Your task to perform on an android device: open app "Gmail" (install if not already installed) and go to login screen Image 0: 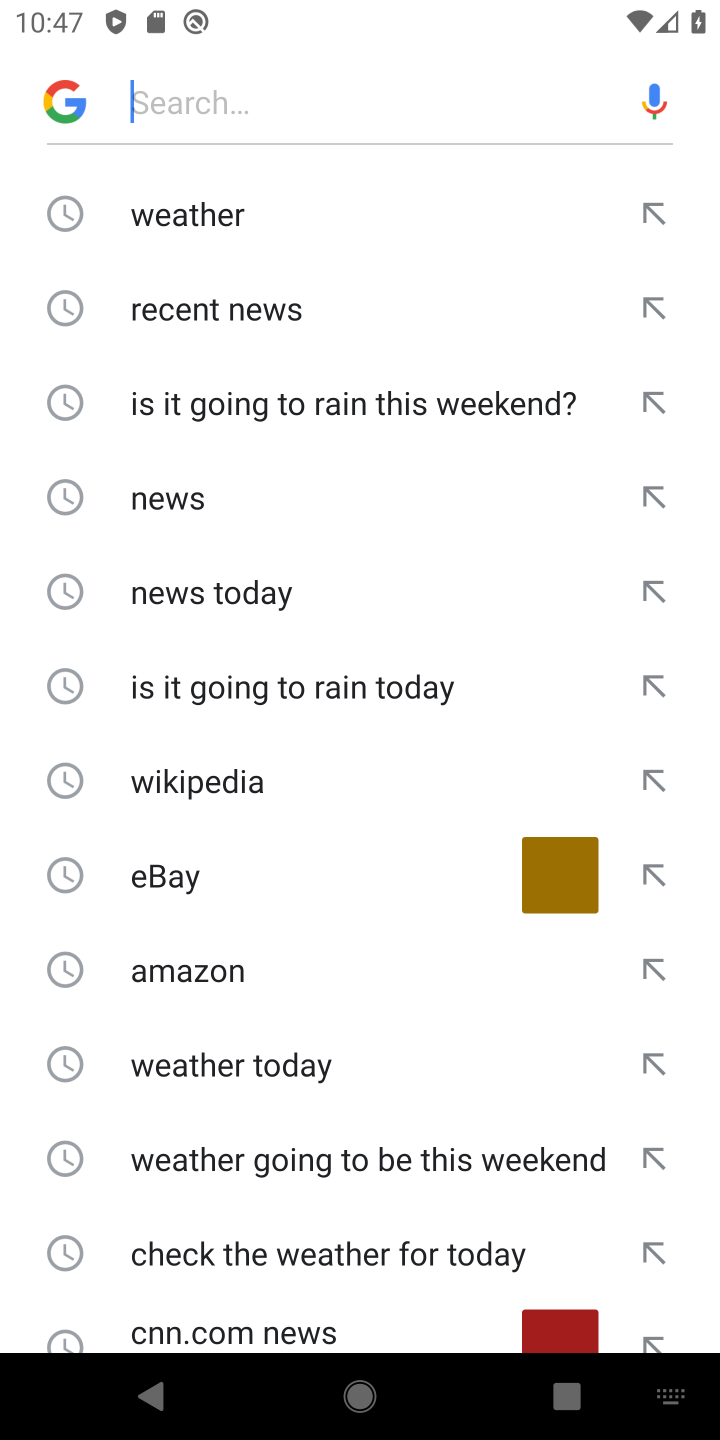
Step 0: press home button
Your task to perform on an android device: open app "Gmail" (install if not already installed) and go to login screen Image 1: 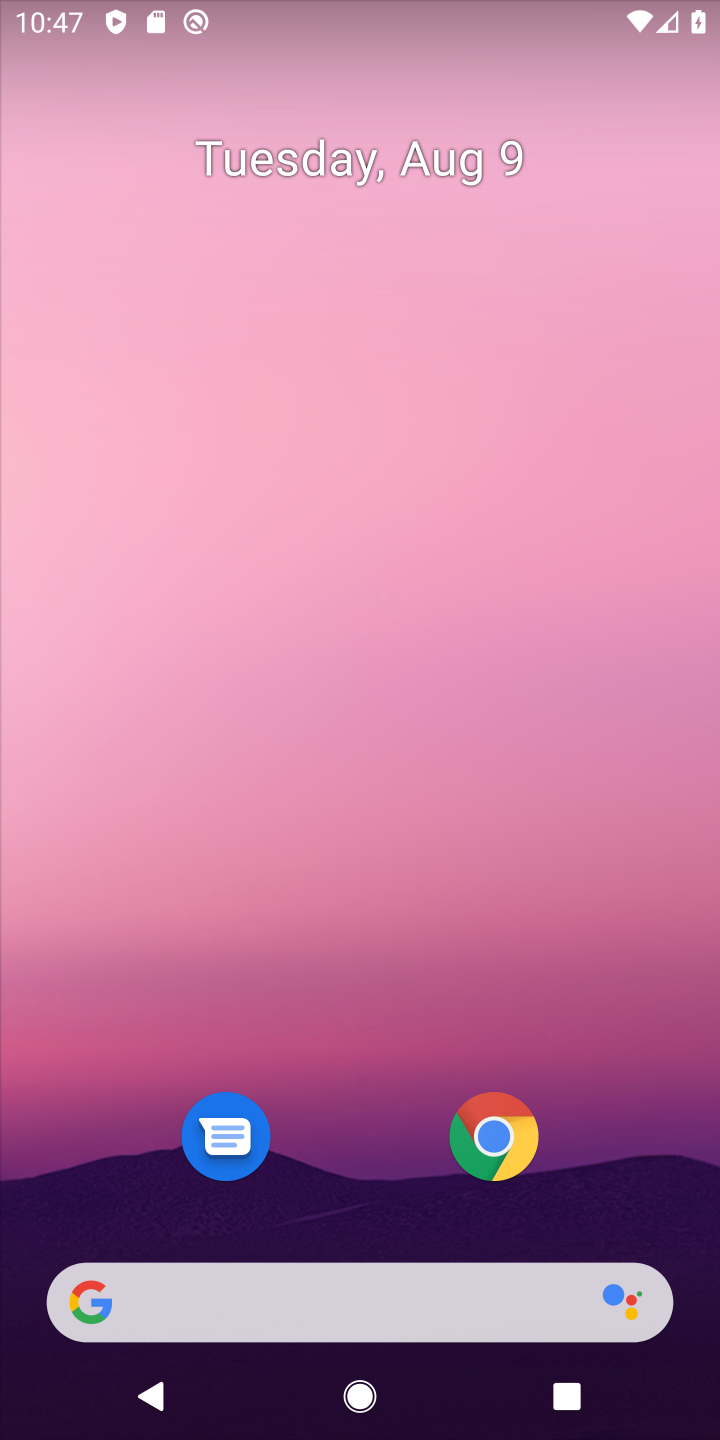
Step 1: drag from (323, 1009) to (401, 10)
Your task to perform on an android device: open app "Gmail" (install if not already installed) and go to login screen Image 2: 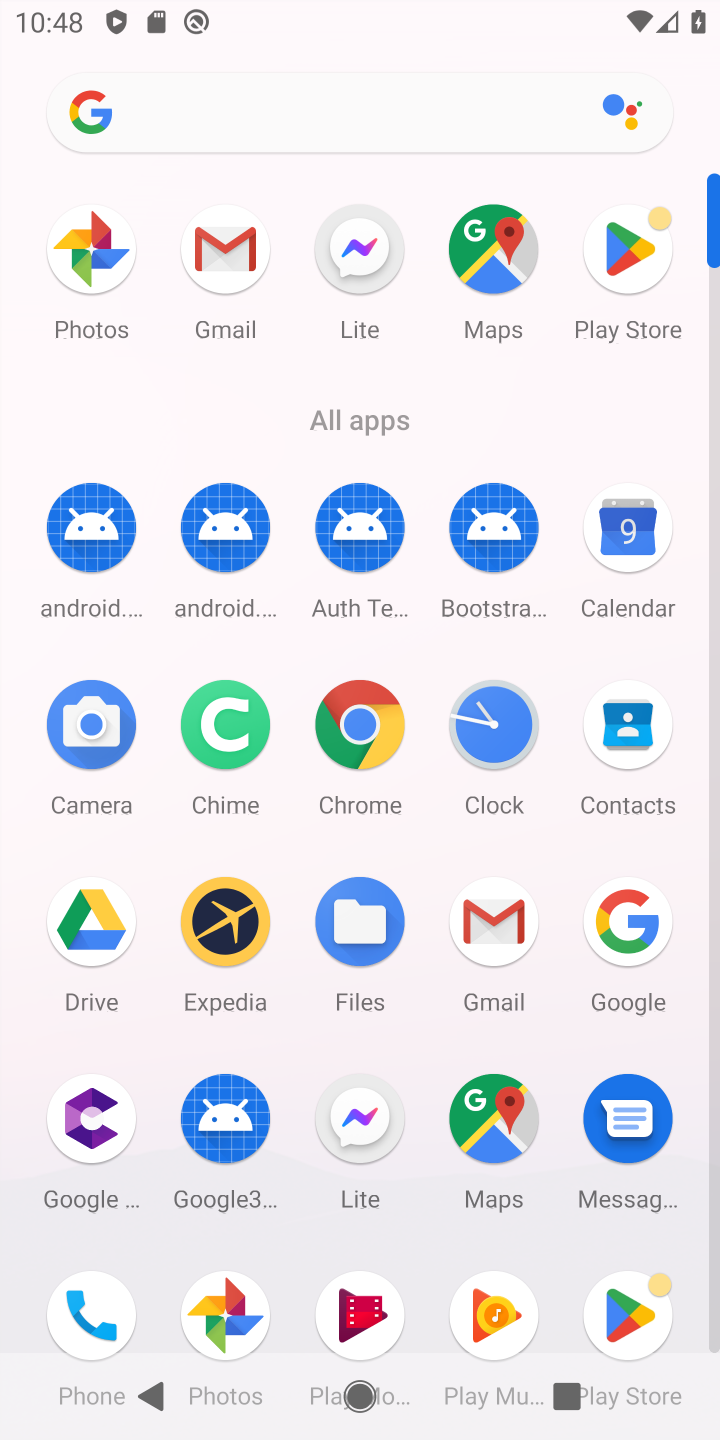
Step 2: click (487, 907)
Your task to perform on an android device: open app "Gmail" (install if not already installed) and go to login screen Image 3: 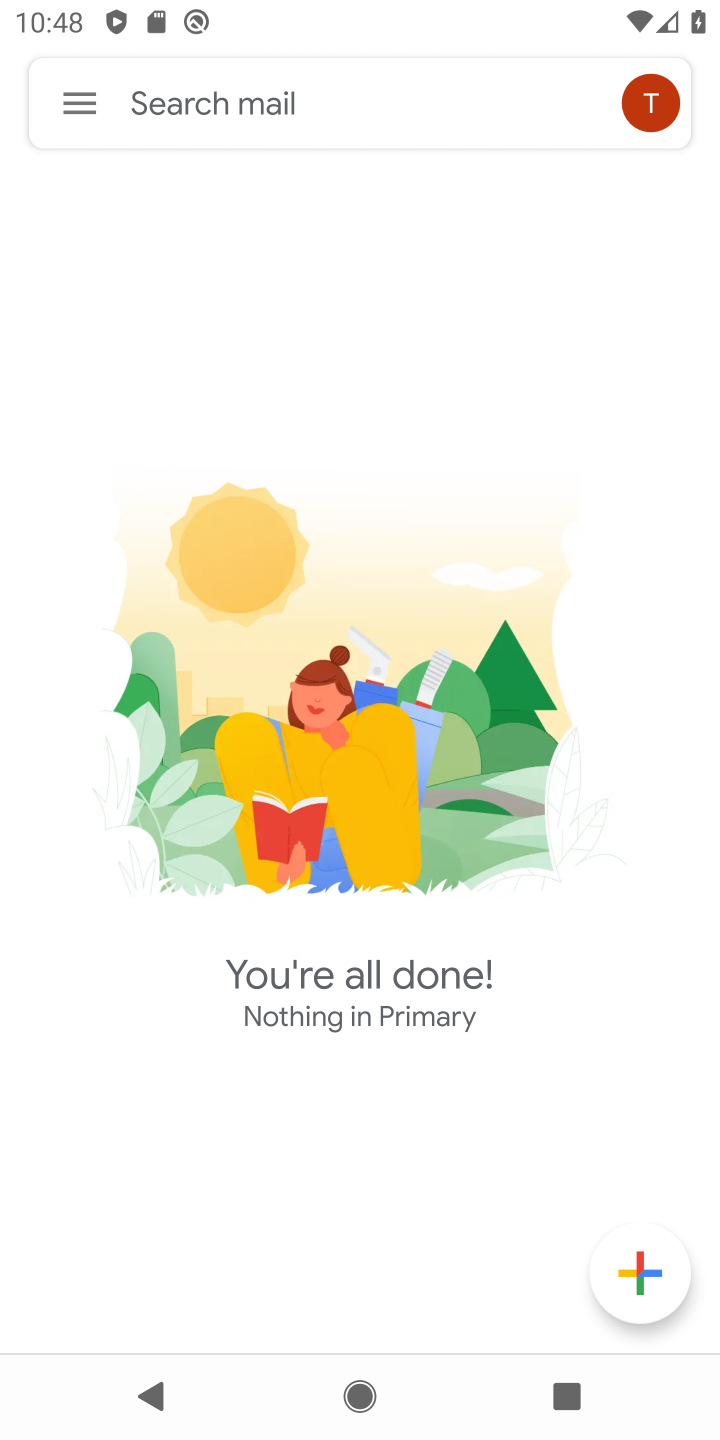
Step 3: task complete